Your task to perform on an android device: turn off notifications in google photos Image 0: 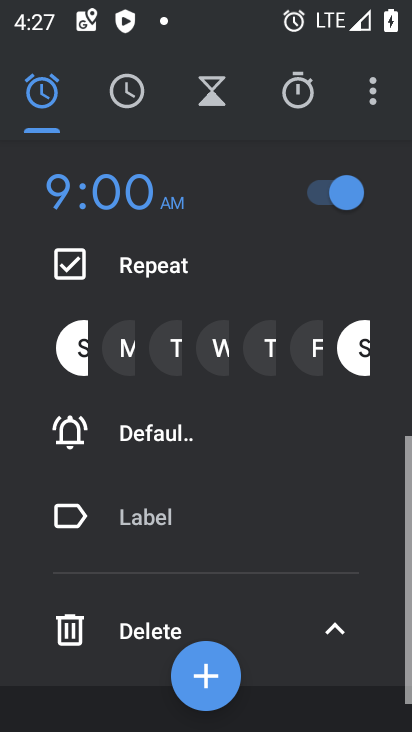
Step 0: drag from (322, 664) to (405, 493)
Your task to perform on an android device: turn off notifications in google photos Image 1: 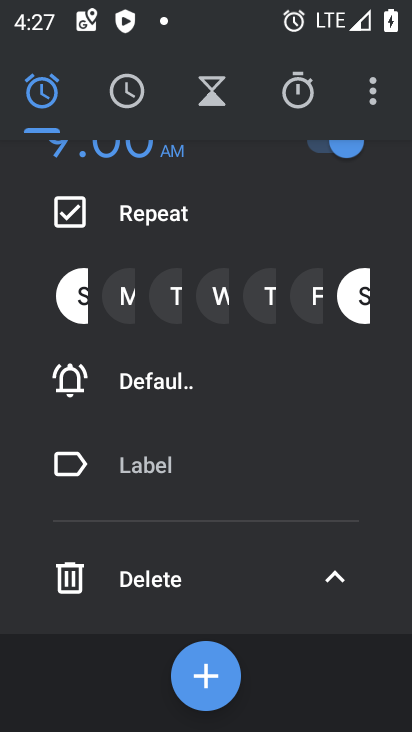
Step 1: press back button
Your task to perform on an android device: turn off notifications in google photos Image 2: 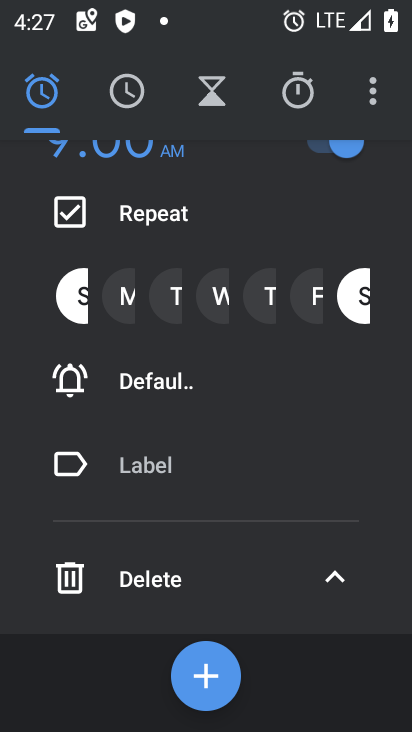
Step 2: click (405, 493)
Your task to perform on an android device: turn off notifications in google photos Image 3: 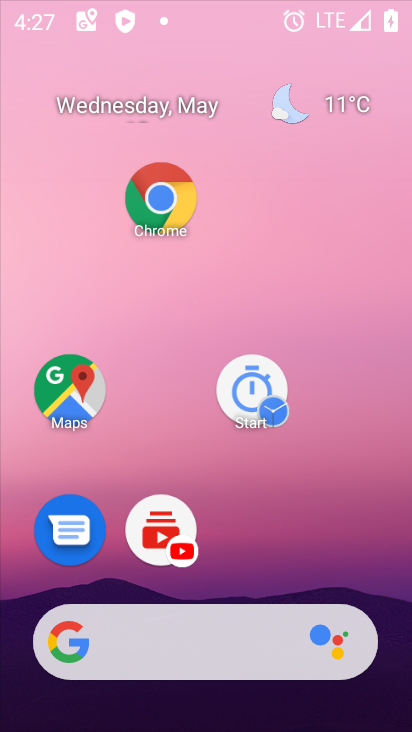
Step 3: press back button
Your task to perform on an android device: turn off notifications in google photos Image 4: 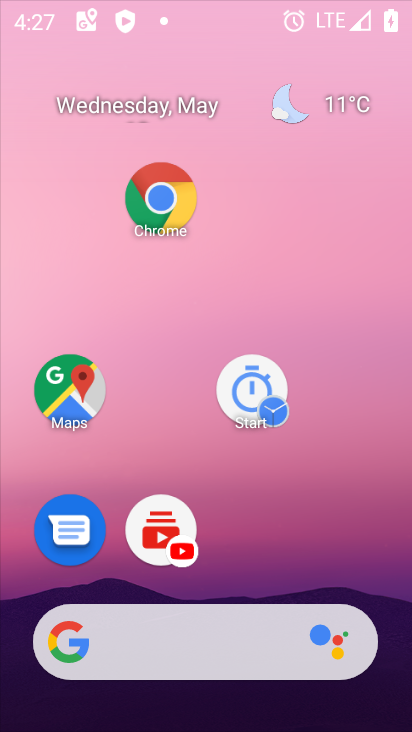
Step 4: click (401, 289)
Your task to perform on an android device: turn off notifications in google photos Image 5: 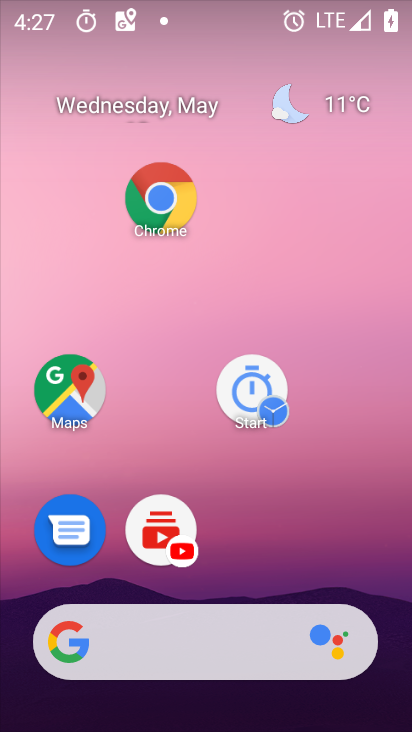
Step 5: drag from (332, 587) to (90, 76)
Your task to perform on an android device: turn off notifications in google photos Image 6: 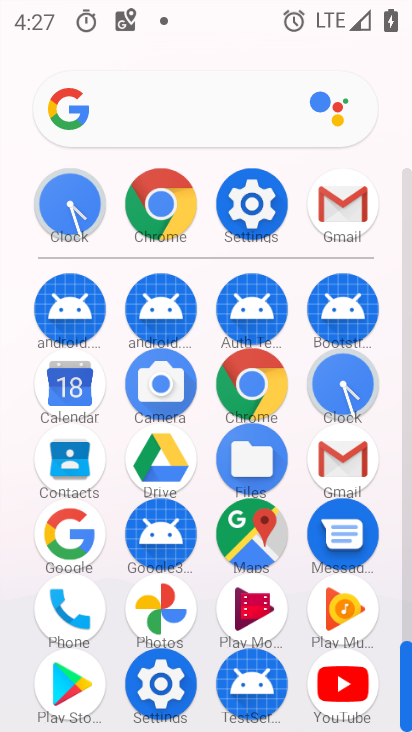
Step 6: click (157, 610)
Your task to perform on an android device: turn off notifications in google photos Image 7: 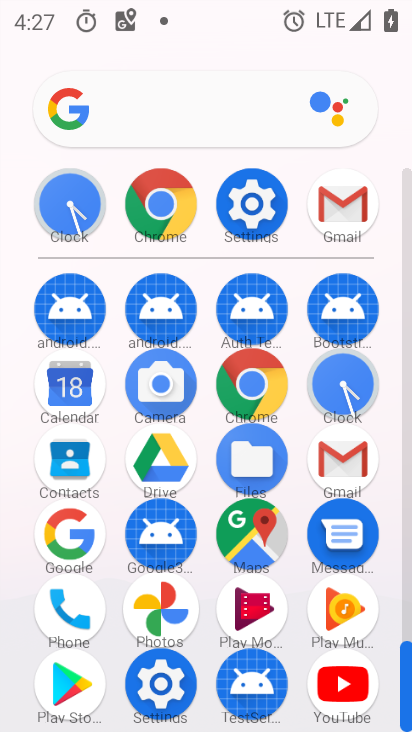
Step 7: click (157, 610)
Your task to perform on an android device: turn off notifications in google photos Image 8: 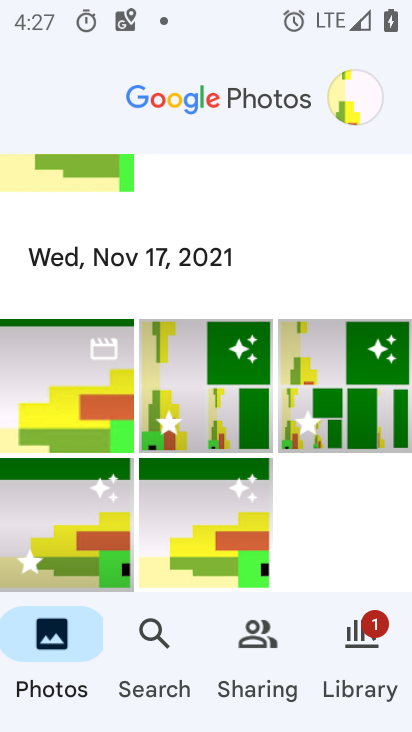
Step 8: task complete